Your task to perform on an android device: Open Google Chrome Image 0: 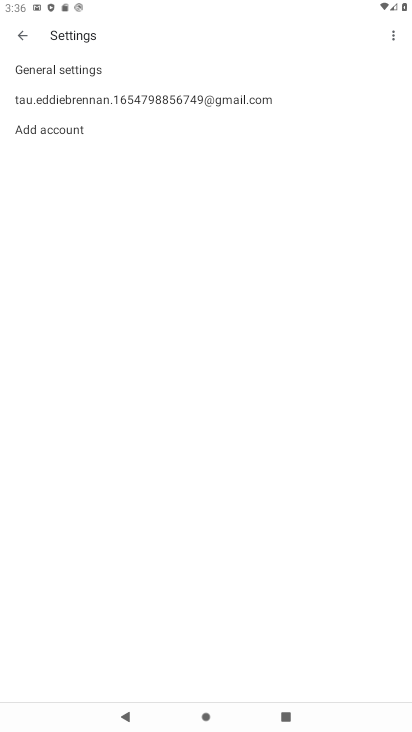
Step 0: press home button
Your task to perform on an android device: Open Google Chrome Image 1: 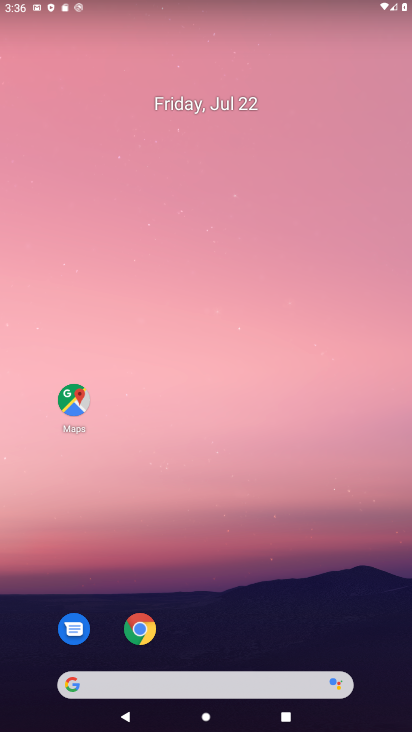
Step 1: drag from (291, 583) to (199, 15)
Your task to perform on an android device: Open Google Chrome Image 2: 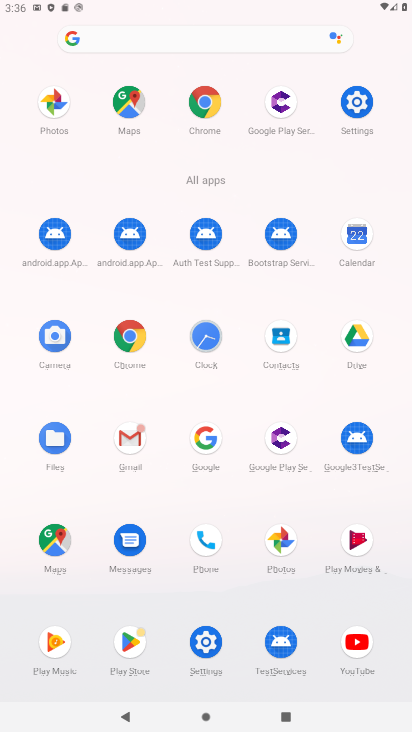
Step 2: click (203, 100)
Your task to perform on an android device: Open Google Chrome Image 3: 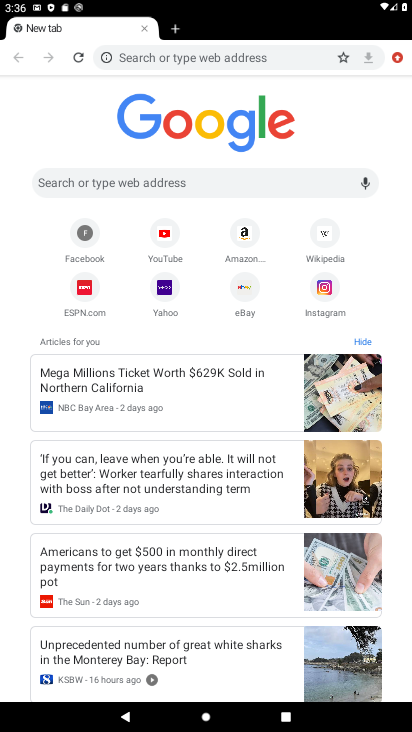
Step 3: task complete